Your task to perform on an android device: Go to ESPN.com Image 0: 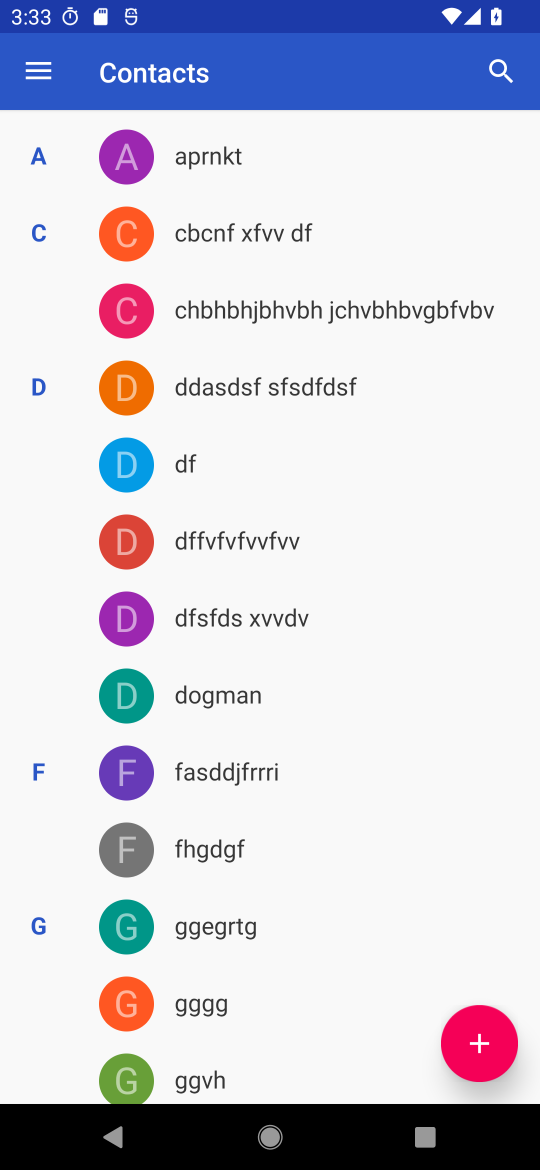
Step 0: press home button
Your task to perform on an android device: Go to ESPN.com Image 1: 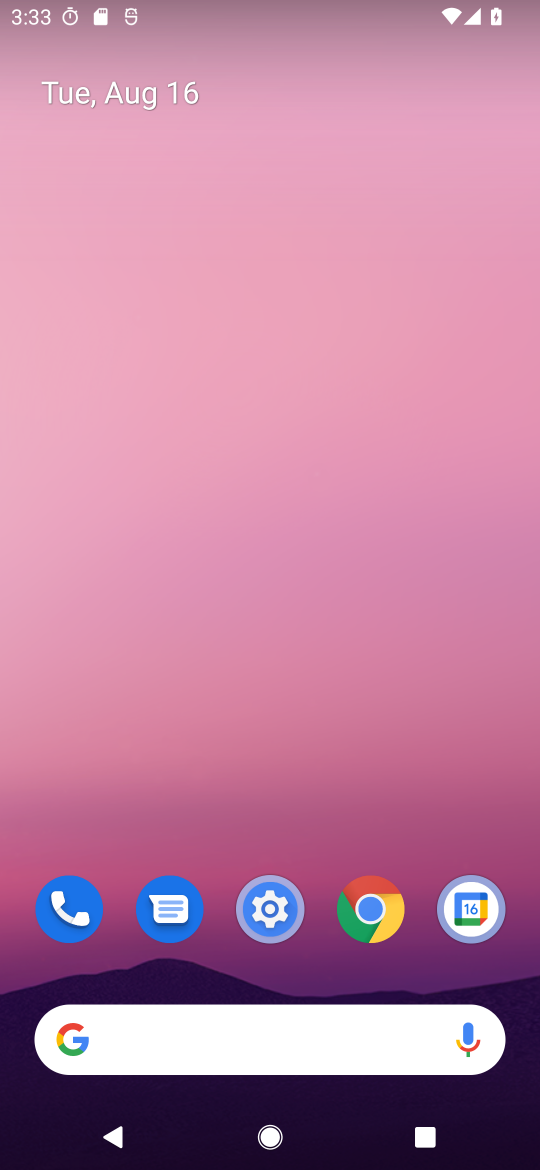
Step 1: click (367, 912)
Your task to perform on an android device: Go to ESPN.com Image 2: 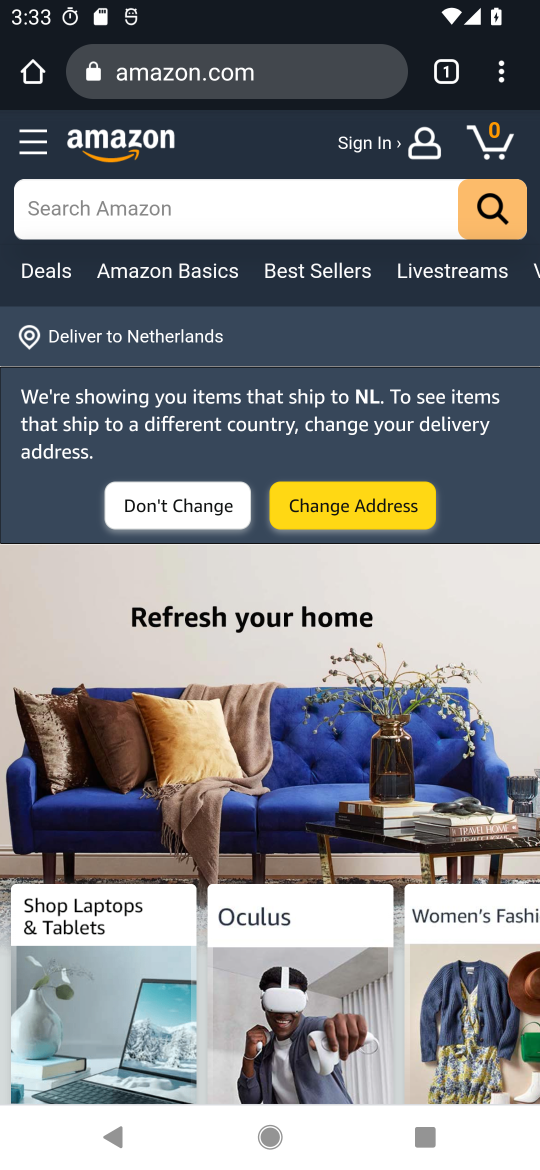
Step 2: click (219, 70)
Your task to perform on an android device: Go to ESPN.com Image 3: 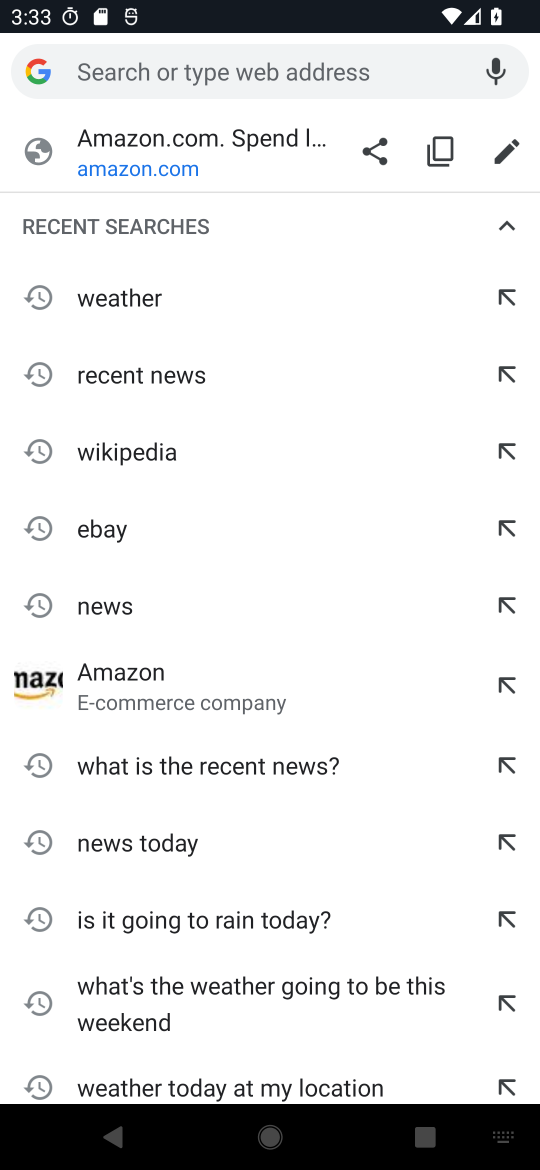
Step 3: type "ESPN.com"
Your task to perform on an android device: Go to ESPN.com Image 4: 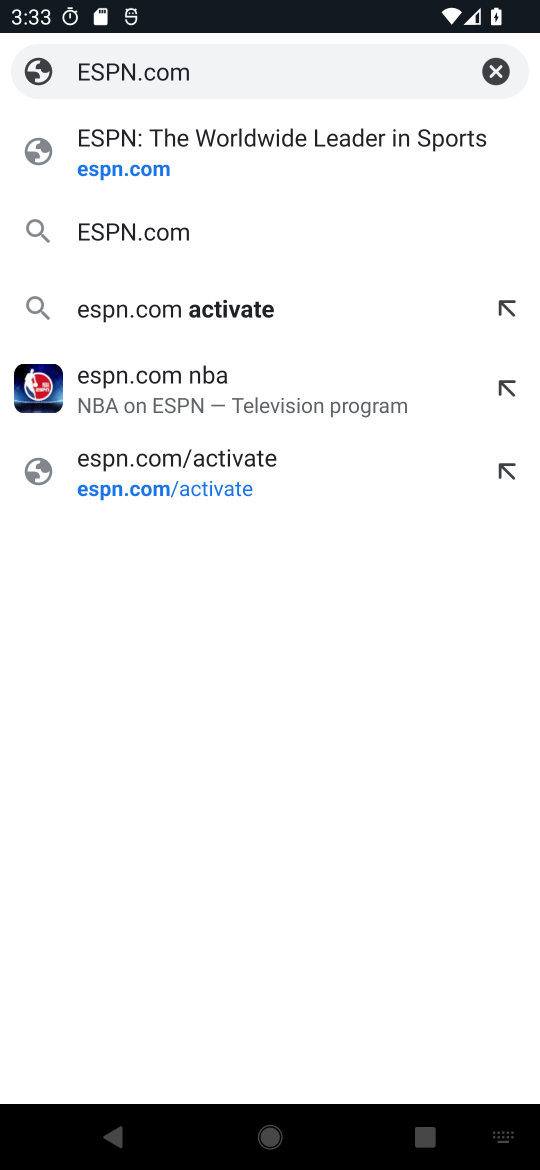
Step 4: click (104, 165)
Your task to perform on an android device: Go to ESPN.com Image 5: 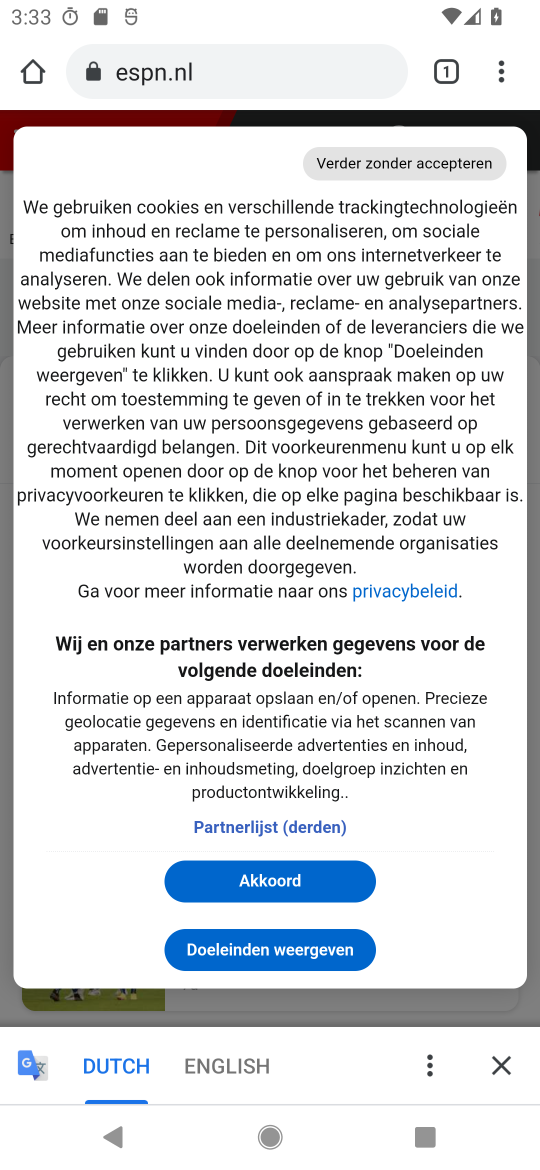
Step 5: task complete